Your task to perform on an android device: Go to internet settings Image 0: 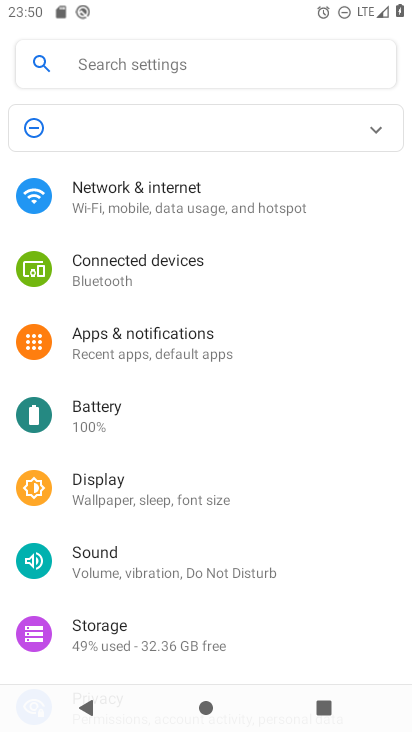
Step 0: click (205, 268)
Your task to perform on an android device: Go to internet settings Image 1: 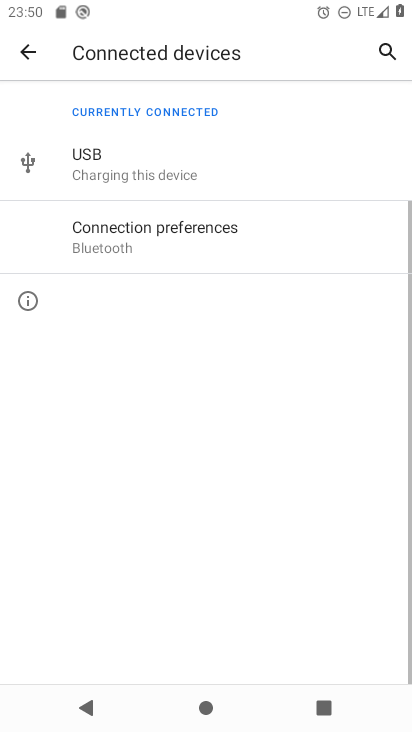
Step 1: press home button
Your task to perform on an android device: Go to internet settings Image 2: 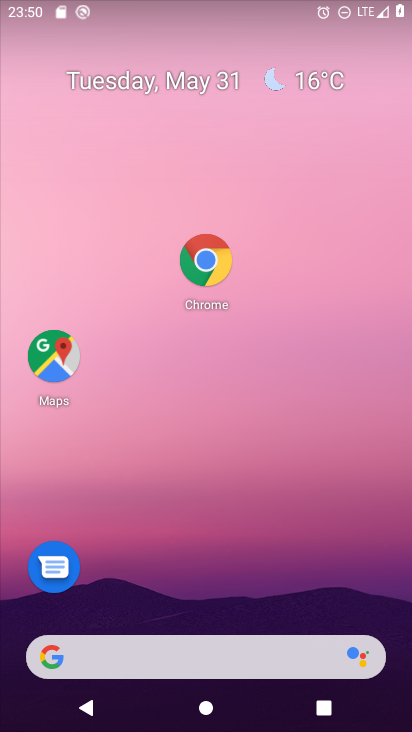
Step 2: drag from (178, 600) to (228, 198)
Your task to perform on an android device: Go to internet settings Image 3: 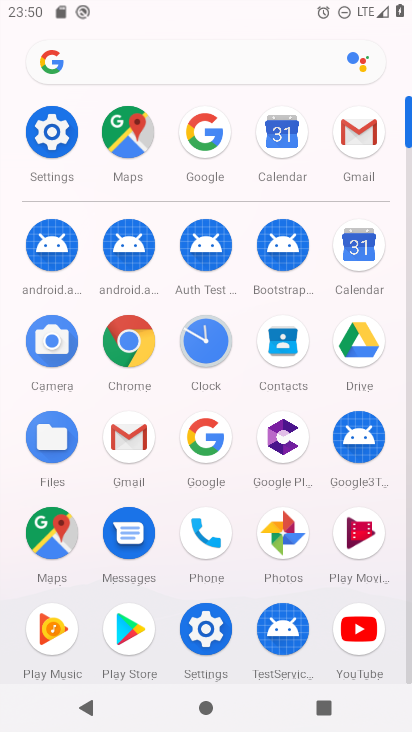
Step 3: click (62, 121)
Your task to perform on an android device: Go to internet settings Image 4: 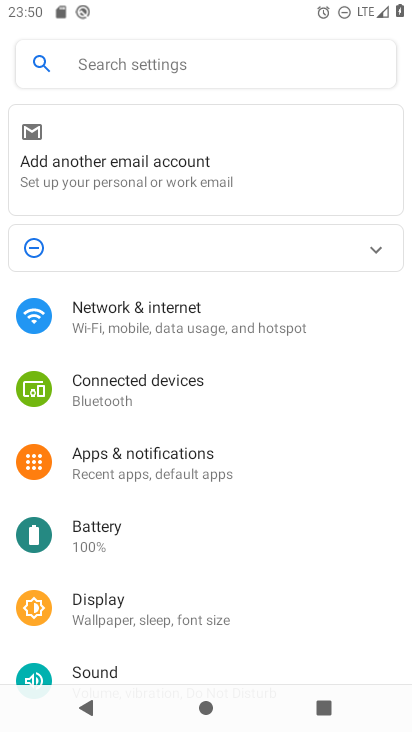
Step 4: click (137, 314)
Your task to perform on an android device: Go to internet settings Image 5: 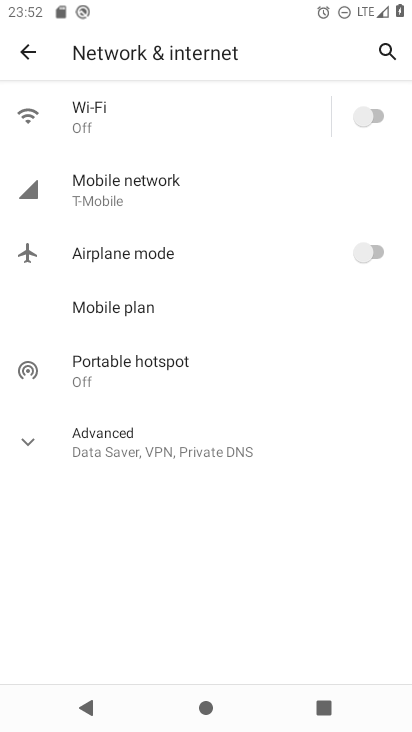
Step 5: task complete